Your task to perform on an android device: open app "Google Home" (install if not already installed) Image 0: 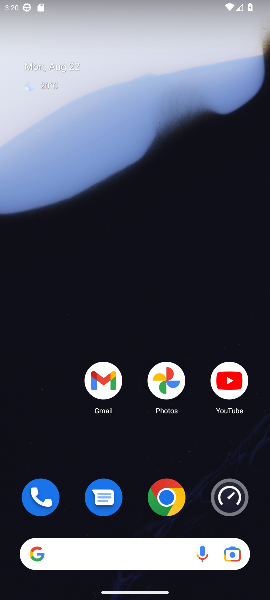
Step 0: press home button
Your task to perform on an android device: open app "Google Home" (install if not already installed) Image 1: 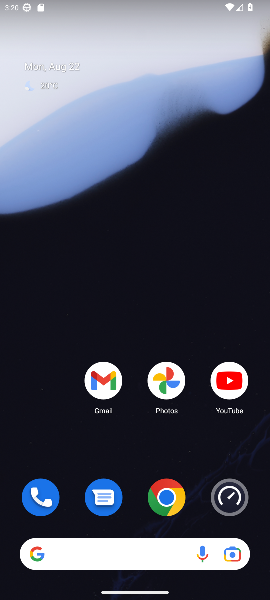
Step 1: drag from (59, 424) to (48, 84)
Your task to perform on an android device: open app "Google Home" (install if not already installed) Image 2: 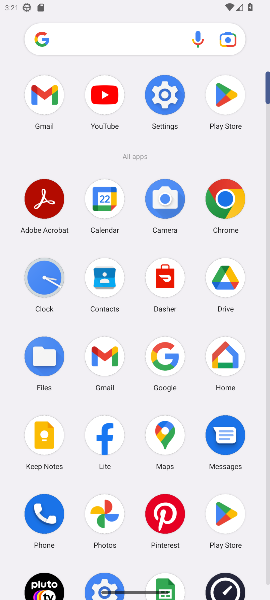
Step 2: click (231, 103)
Your task to perform on an android device: open app "Google Home" (install if not already installed) Image 3: 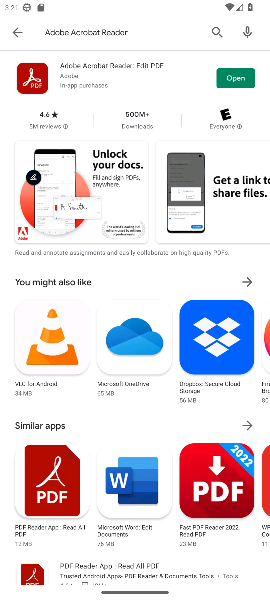
Step 3: press back button
Your task to perform on an android device: open app "Google Home" (install if not already installed) Image 4: 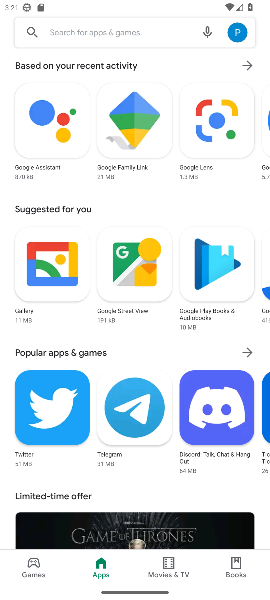
Step 4: click (149, 34)
Your task to perform on an android device: open app "Google Home" (install if not already installed) Image 5: 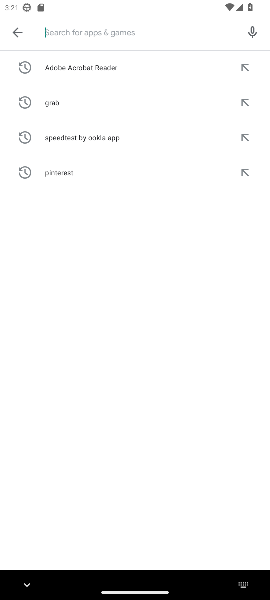
Step 5: press enter
Your task to perform on an android device: open app "Google Home" (install if not already installed) Image 6: 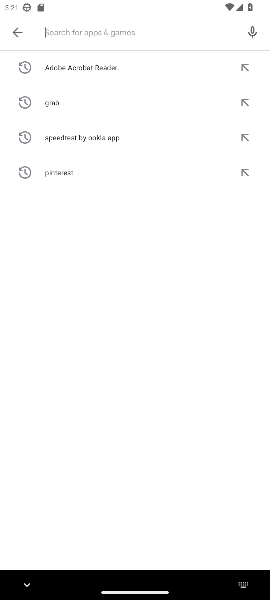
Step 6: type "google home"
Your task to perform on an android device: open app "Google Home" (install if not already installed) Image 7: 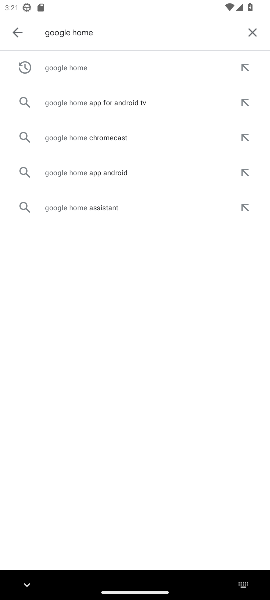
Step 7: click (93, 60)
Your task to perform on an android device: open app "Google Home" (install if not already installed) Image 8: 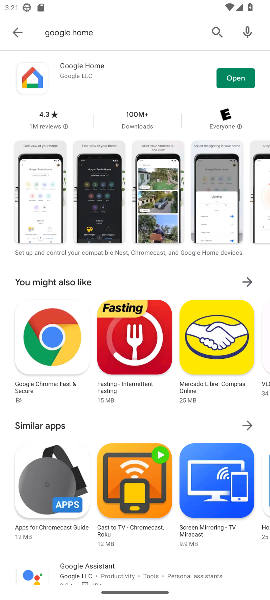
Step 8: click (235, 78)
Your task to perform on an android device: open app "Google Home" (install if not already installed) Image 9: 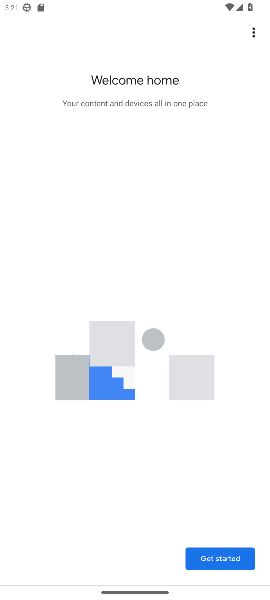
Step 9: task complete